Your task to perform on an android device: show emergency info Image 0: 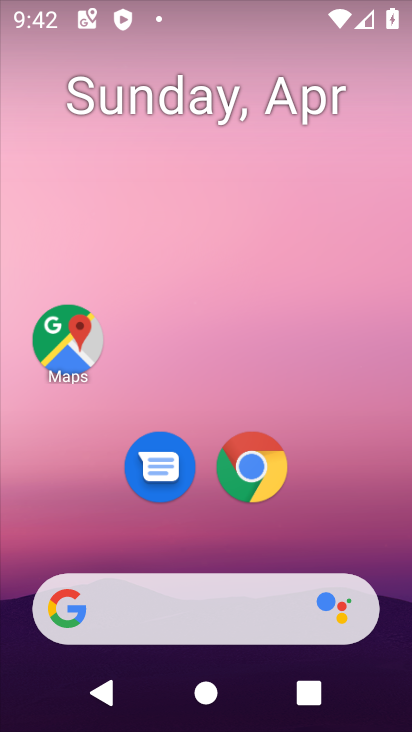
Step 0: drag from (200, 435) to (224, 60)
Your task to perform on an android device: show emergency info Image 1: 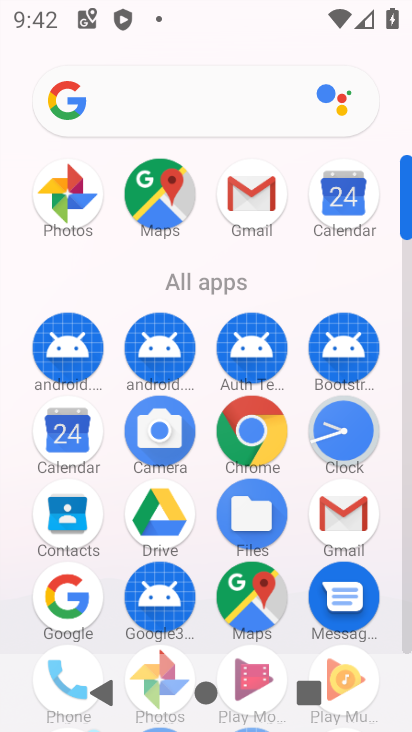
Step 1: drag from (206, 418) to (234, 232)
Your task to perform on an android device: show emergency info Image 2: 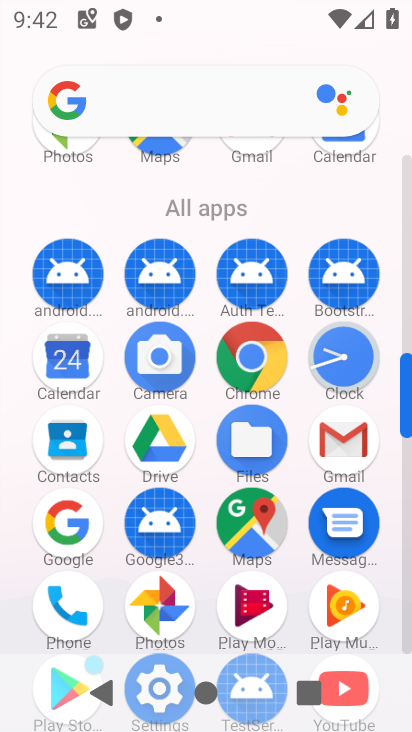
Step 2: drag from (200, 624) to (223, 194)
Your task to perform on an android device: show emergency info Image 3: 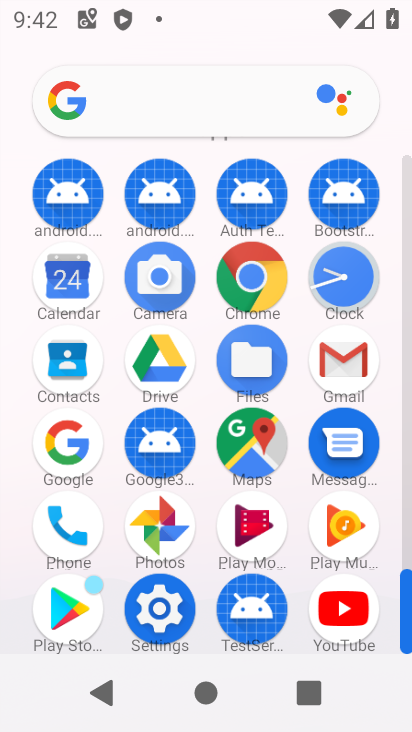
Step 3: click (150, 598)
Your task to perform on an android device: show emergency info Image 4: 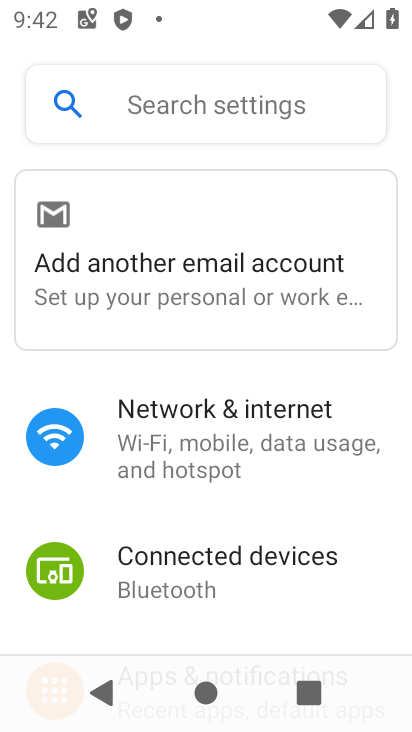
Step 4: drag from (223, 580) to (260, 253)
Your task to perform on an android device: show emergency info Image 5: 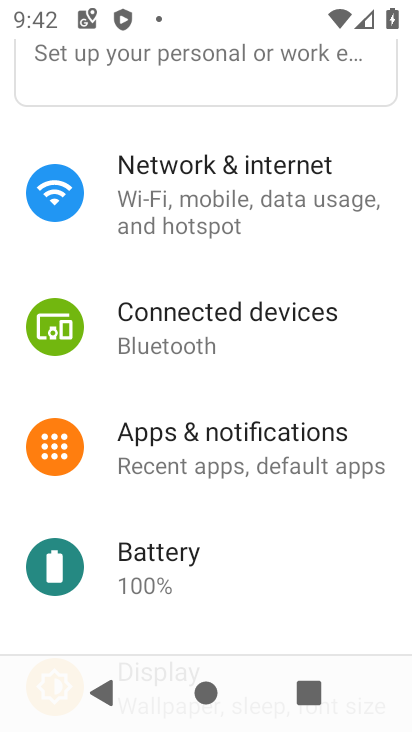
Step 5: drag from (201, 588) to (264, 148)
Your task to perform on an android device: show emergency info Image 6: 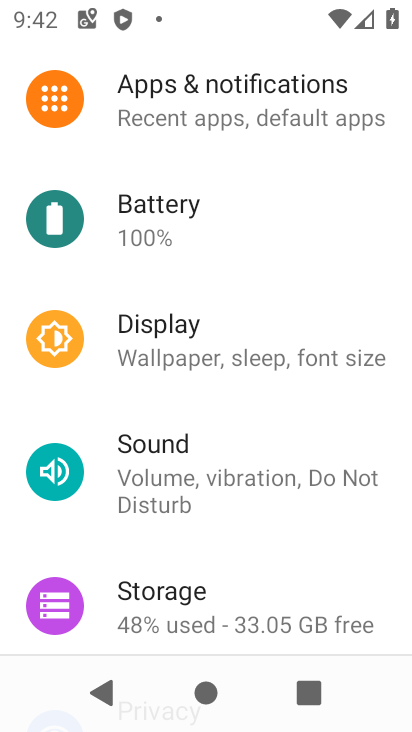
Step 6: drag from (220, 516) to (275, 42)
Your task to perform on an android device: show emergency info Image 7: 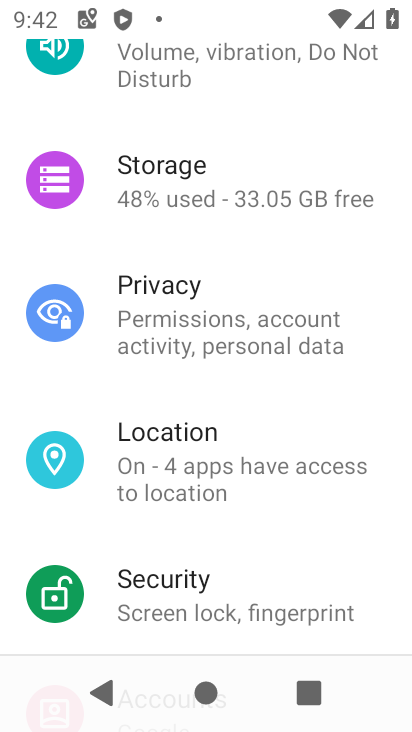
Step 7: drag from (192, 606) to (289, 47)
Your task to perform on an android device: show emergency info Image 8: 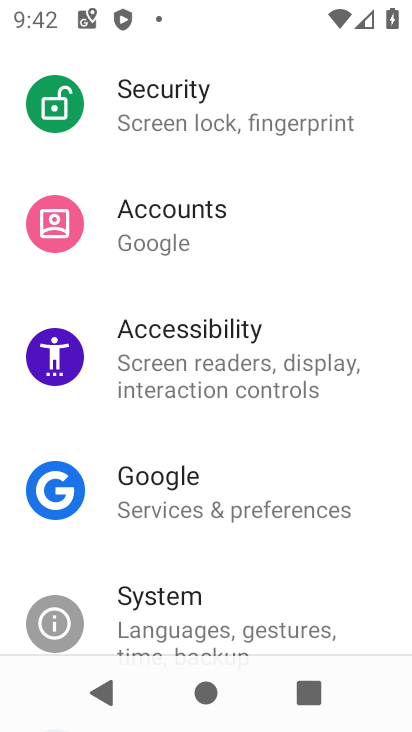
Step 8: drag from (200, 621) to (282, 47)
Your task to perform on an android device: show emergency info Image 9: 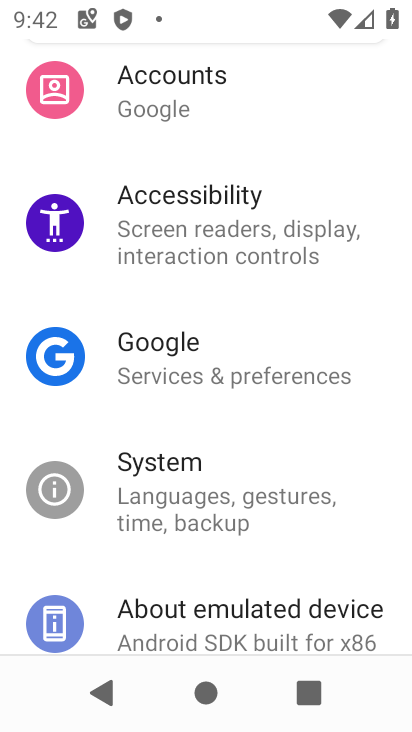
Step 9: click (225, 611)
Your task to perform on an android device: show emergency info Image 10: 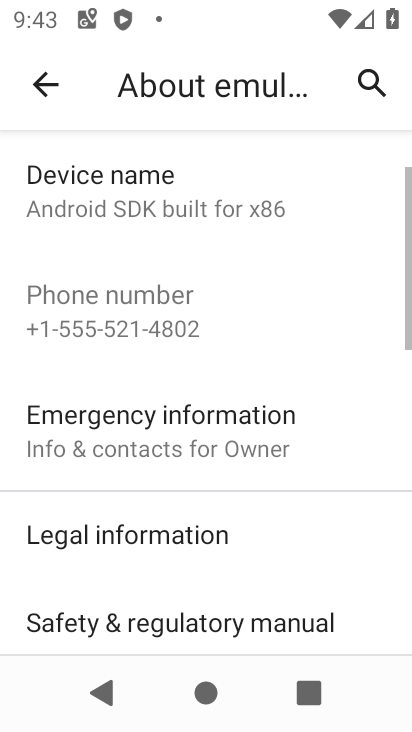
Step 10: click (221, 422)
Your task to perform on an android device: show emergency info Image 11: 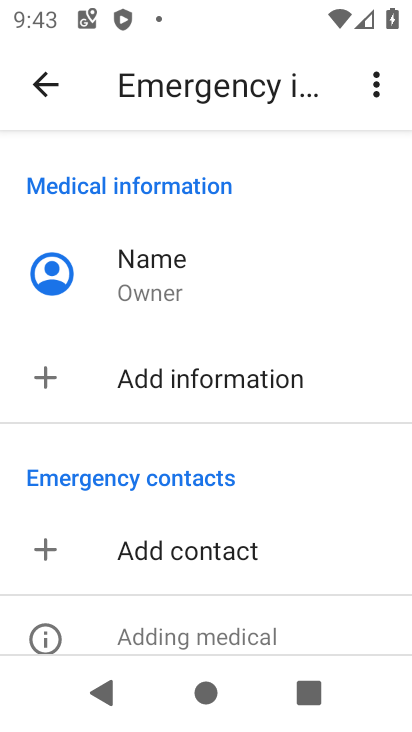
Step 11: task complete